Your task to perform on an android device: toggle priority inbox in the gmail app Image 0: 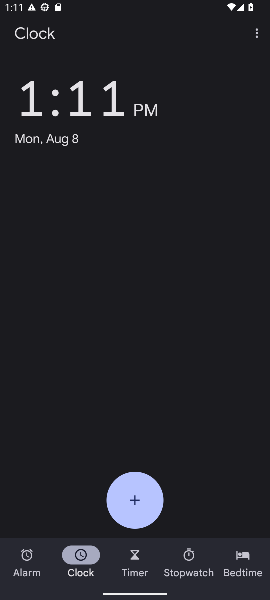
Step 0: press home button
Your task to perform on an android device: toggle priority inbox in the gmail app Image 1: 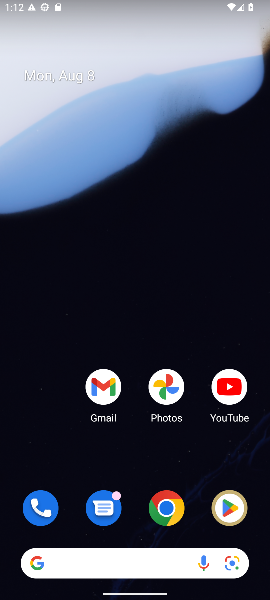
Step 1: click (130, 37)
Your task to perform on an android device: toggle priority inbox in the gmail app Image 2: 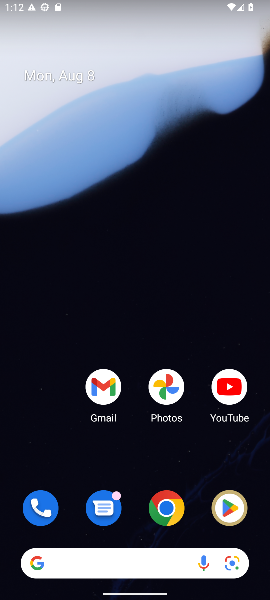
Step 2: click (142, 140)
Your task to perform on an android device: toggle priority inbox in the gmail app Image 3: 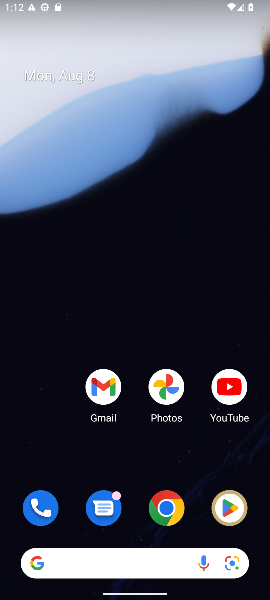
Step 3: click (237, 27)
Your task to perform on an android device: toggle priority inbox in the gmail app Image 4: 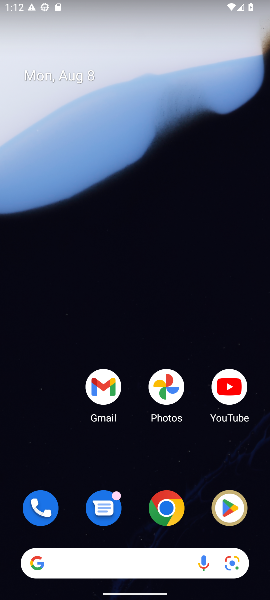
Step 4: drag from (141, 527) to (164, 107)
Your task to perform on an android device: toggle priority inbox in the gmail app Image 5: 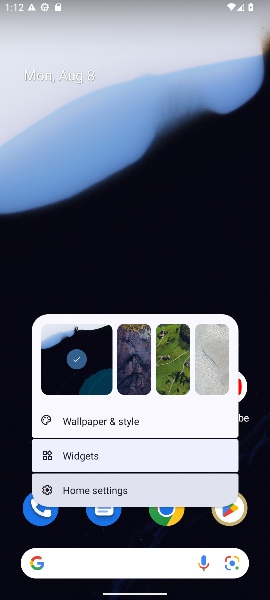
Step 5: press home button
Your task to perform on an android device: toggle priority inbox in the gmail app Image 6: 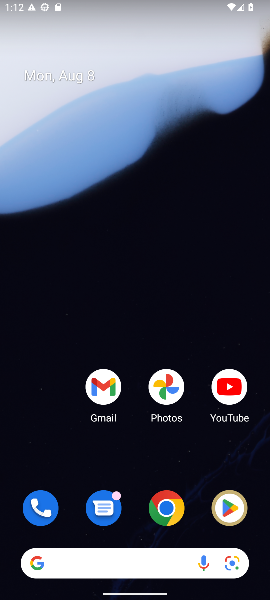
Step 6: click (106, 394)
Your task to perform on an android device: toggle priority inbox in the gmail app Image 7: 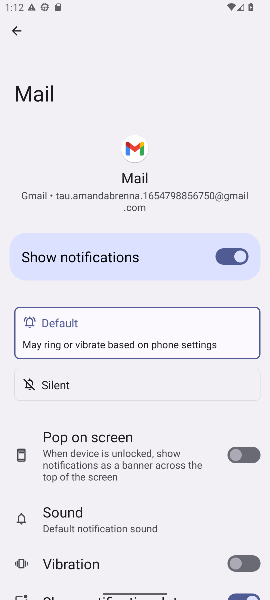
Step 7: click (13, 28)
Your task to perform on an android device: toggle priority inbox in the gmail app Image 8: 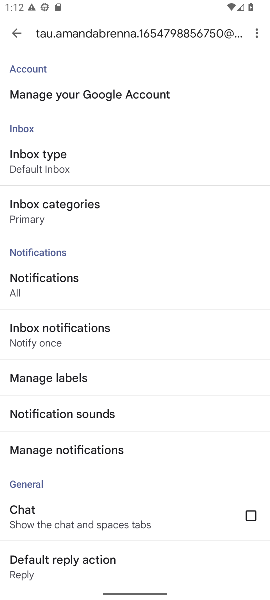
Step 8: click (19, 33)
Your task to perform on an android device: toggle priority inbox in the gmail app Image 9: 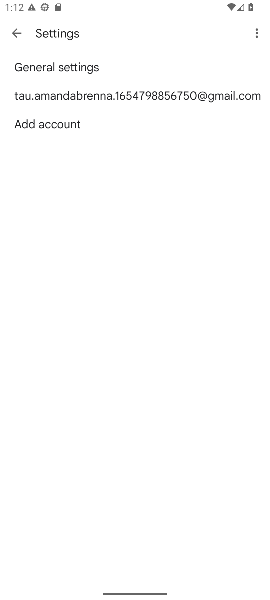
Step 9: click (55, 93)
Your task to perform on an android device: toggle priority inbox in the gmail app Image 10: 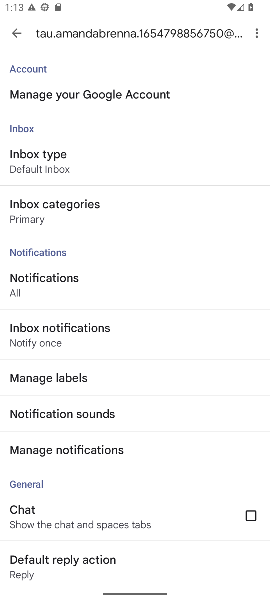
Step 10: click (51, 164)
Your task to perform on an android device: toggle priority inbox in the gmail app Image 11: 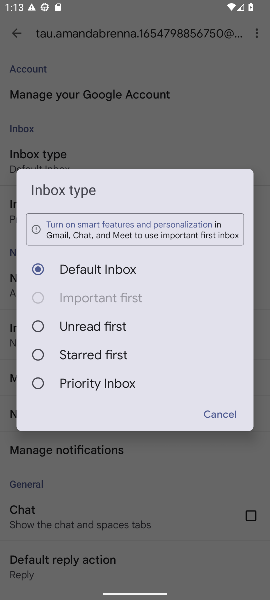
Step 11: click (39, 382)
Your task to perform on an android device: toggle priority inbox in the gmail app Image 12: 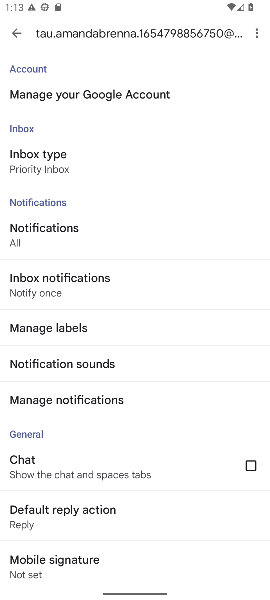
Step 12: task complete